Your task to perform on an android device: turn off wifi Image 0: 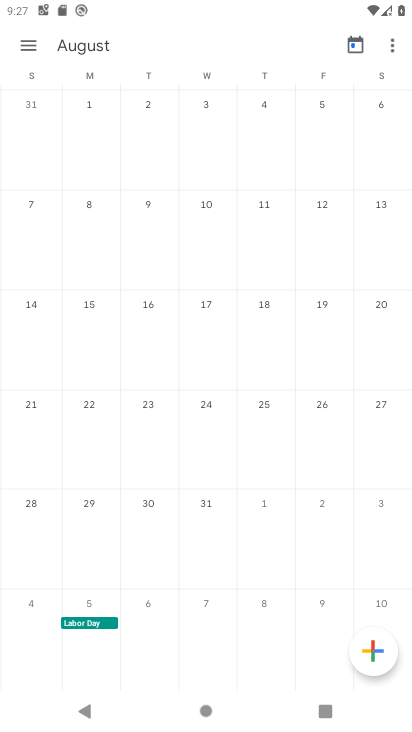
Step 0: press home button
Your task to perform on an android device: turn off wifi Image 1: 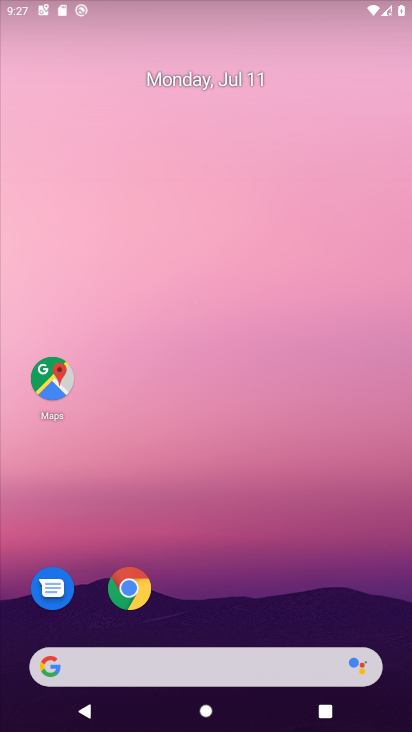
Step 1: drag from (228, 643) to (227, 146)
Your task to perform on an android device: turn off wifi Image 2: 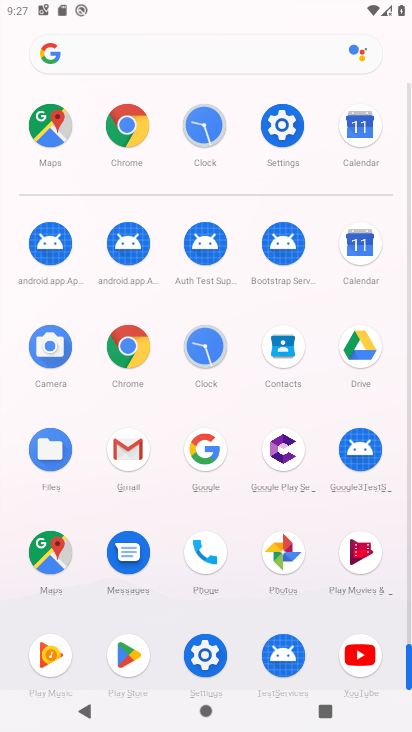
Step 2: click (282, 117)
Your task to perform on an android device: turn off wifi Image 3: 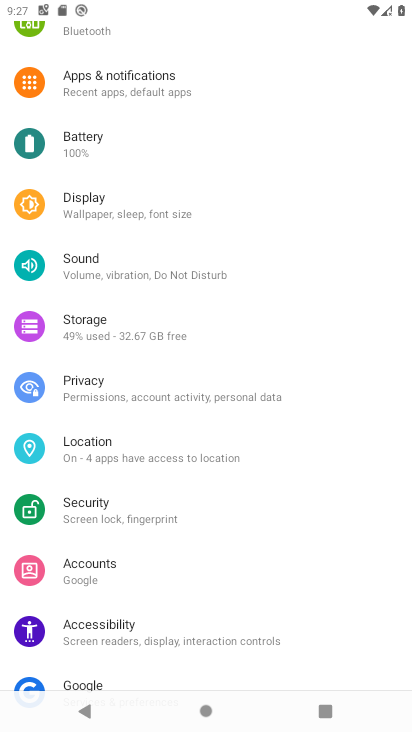
Step 3: drag from (203, 80) to (223, 517)
Your task to perform on an android device: turn off wifi Image 4: 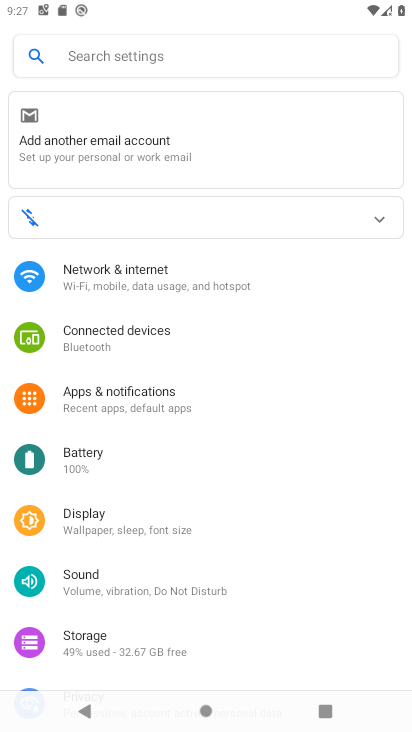
Step 4: click (140, 271)
Your task to perform on an android device: turn off wifi Image 5: 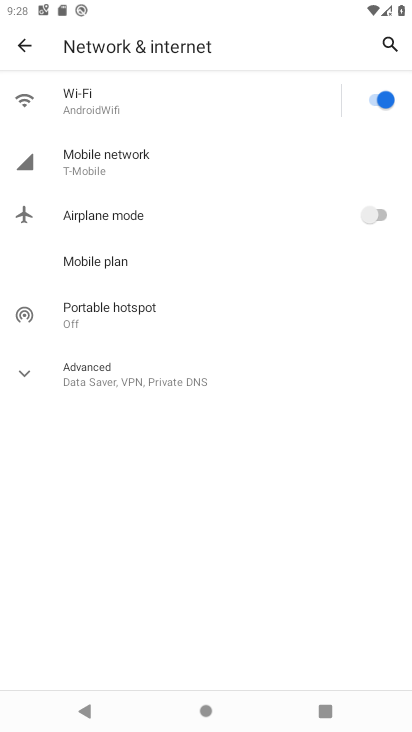
Step 5: click (371, 103)
Your task to perform on an android device: turn off wifi Image 6: 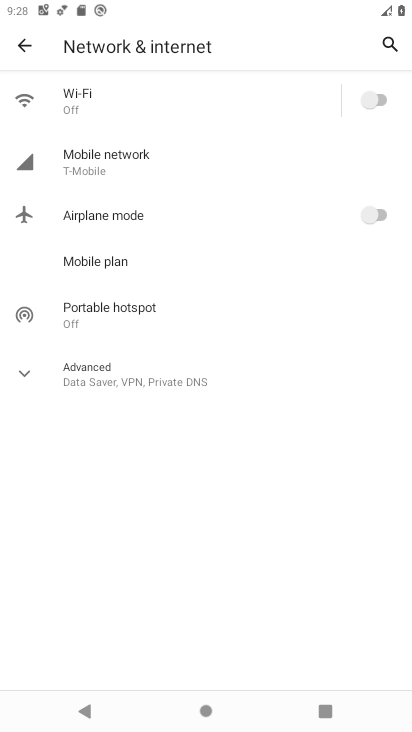
Step 6: task complete